Your task to perform on an android device: Open Youtube and go to the subscriptions tab Image 0: 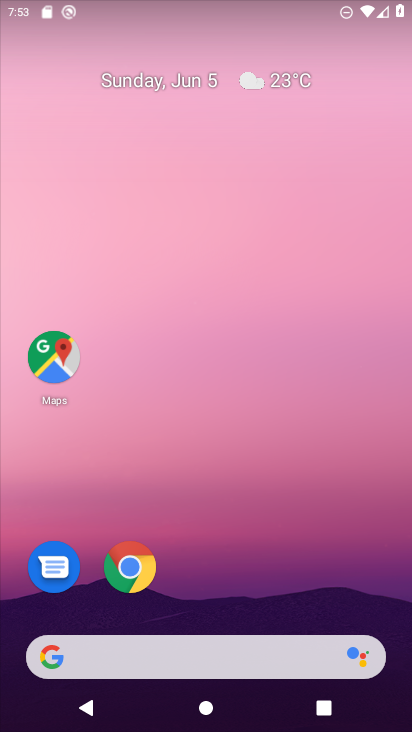
Step 0: drag from (391, 631) to (259, 87)
Your task to perform on an android device: Open Youtube and go to the subscriptions tab Image 1: 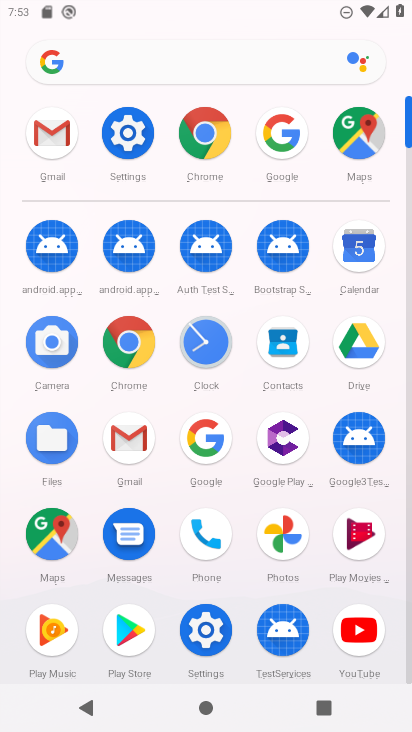
Step 1: click (360, 634)
Your task to perform on an android device: Open Youtube and go to the subscriptions tab Image 2: 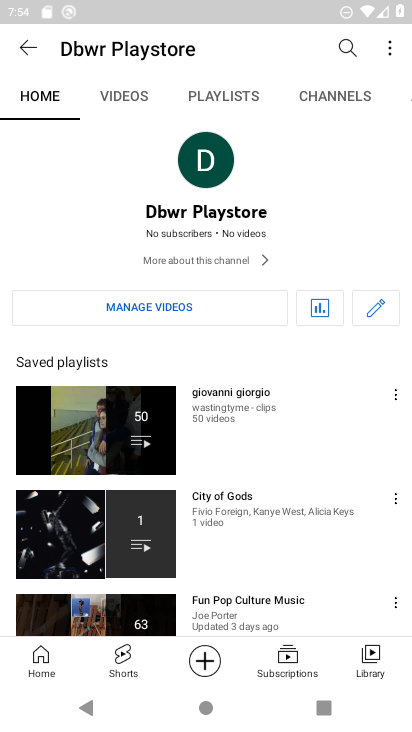
Step 2: press back button
Your task to perform on an android device: Open Youtube and go to the subscriptions tab Image 3: 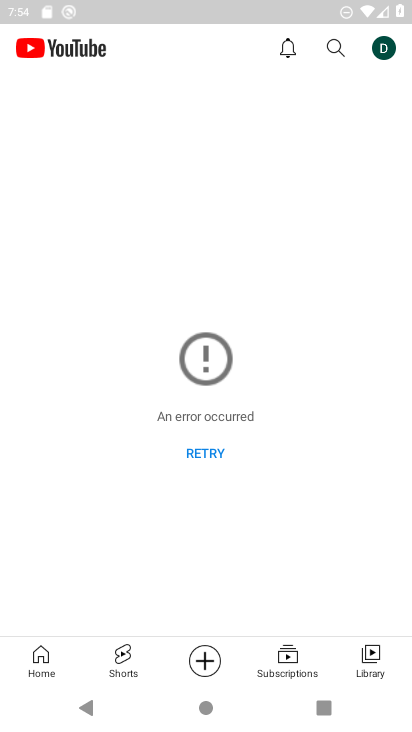
Step 3: click (285, 648)
Your task to perform on an android device: Open Youtube and go to the subscriptions tab Image 4: 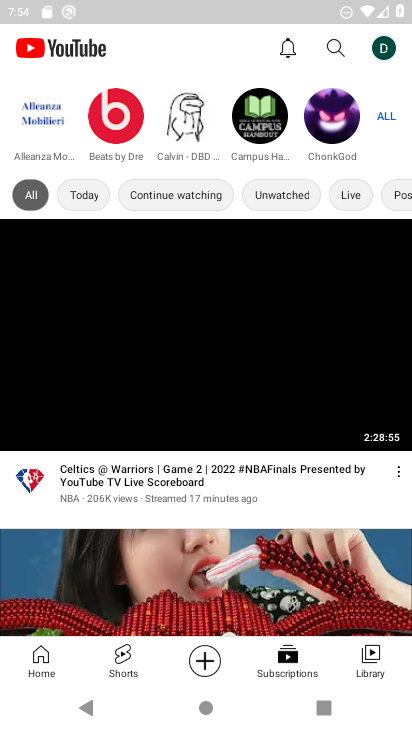
Step 4: task complete